Your task to perform on an android device: open app "Adobe Express: Graphic Design" (install if not already installed) Image 0: 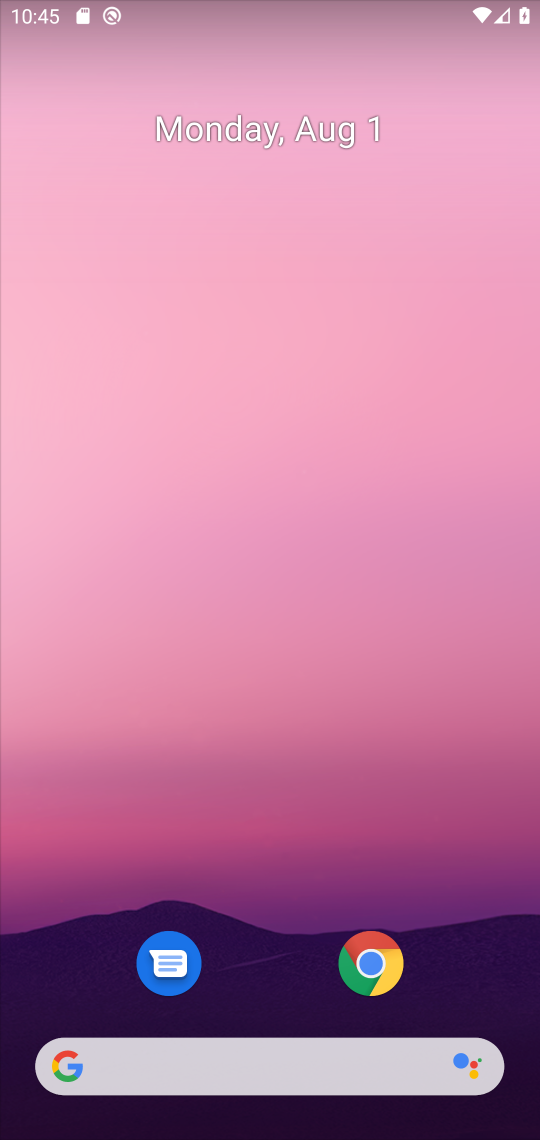
Step 0: drag from (251, 973) to (203, 0)
Your task to perform on an android device: open app "Adobe Express: Graphic Design" (install if not already installed) Image 1: 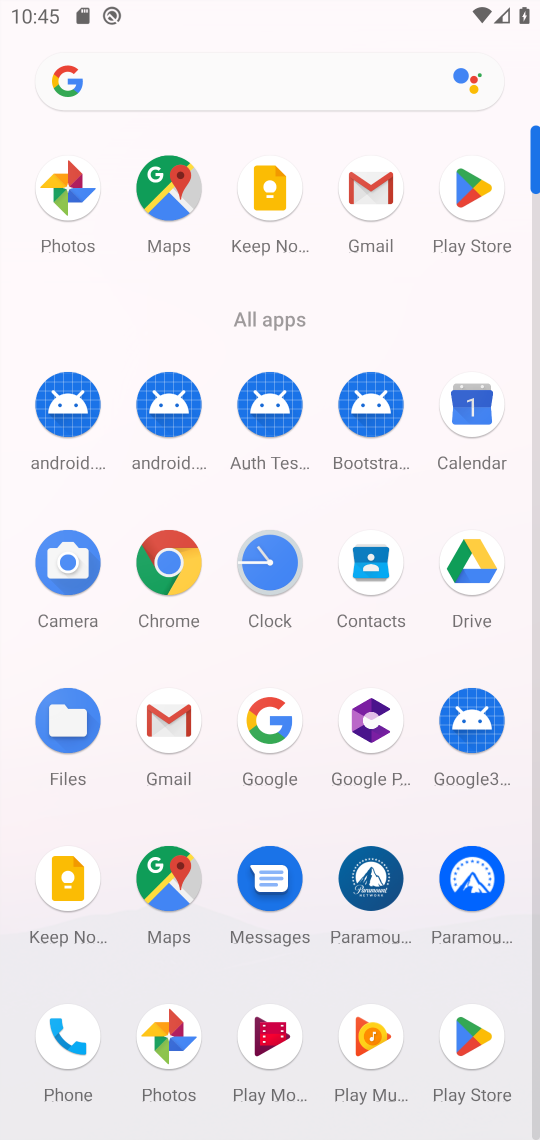
Step 1: click (488, 205)
Your task to perform on an android device: open app "Adobe Express: Graphic Design" (install if not already installed) Image 2: 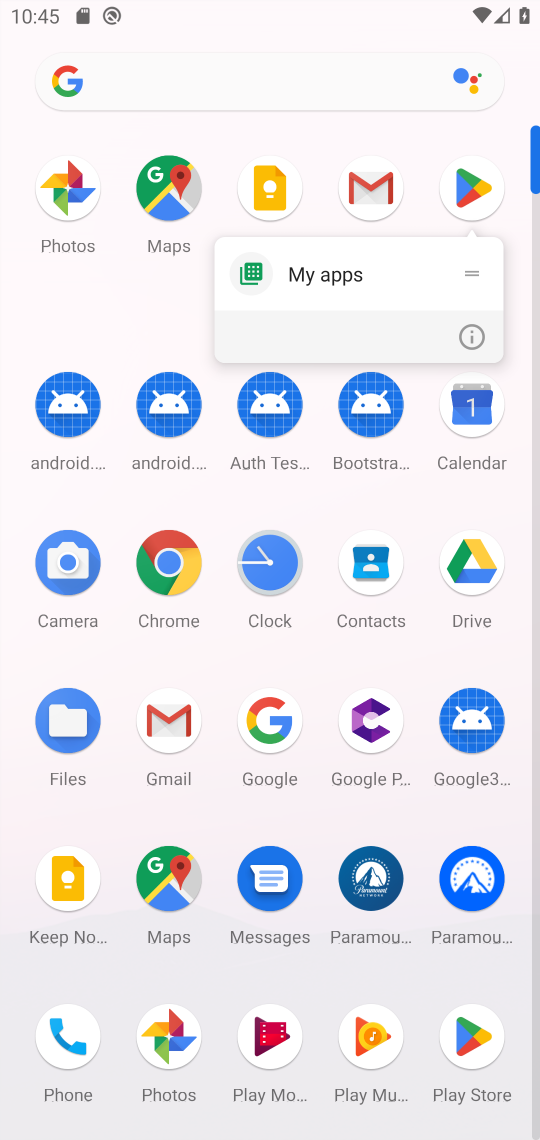
Step 2: click (465, 180)
Your task to perform on an android device: open app "Adobe Express: Graphic Design" (install if not already installed) Image 3: 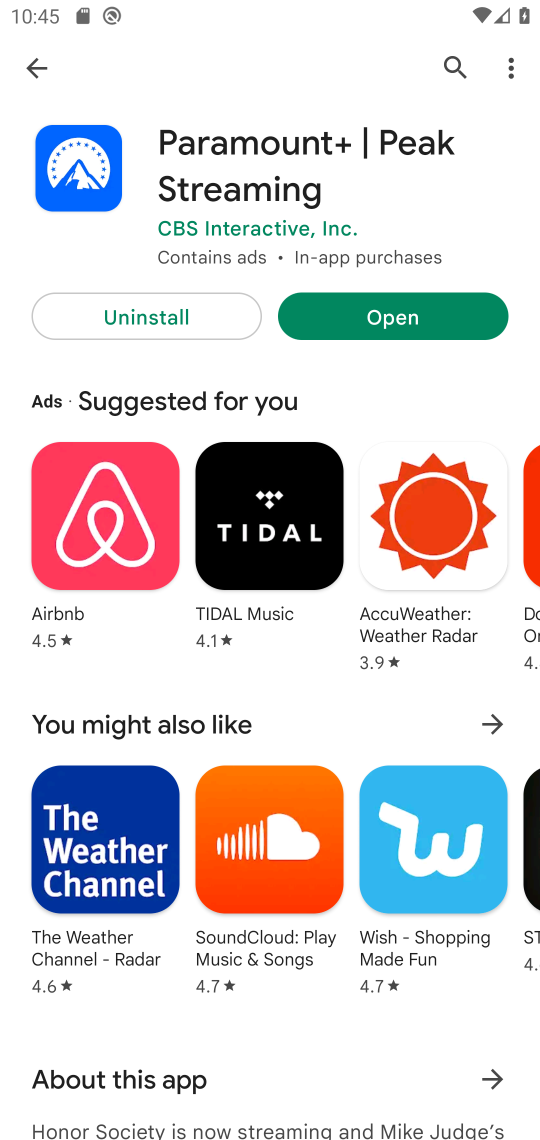
Step 3: click (39, 62)
Your task to perform on an android device: open app "Adobe Express: Graphic Design" (install if not already installed) Image 4: 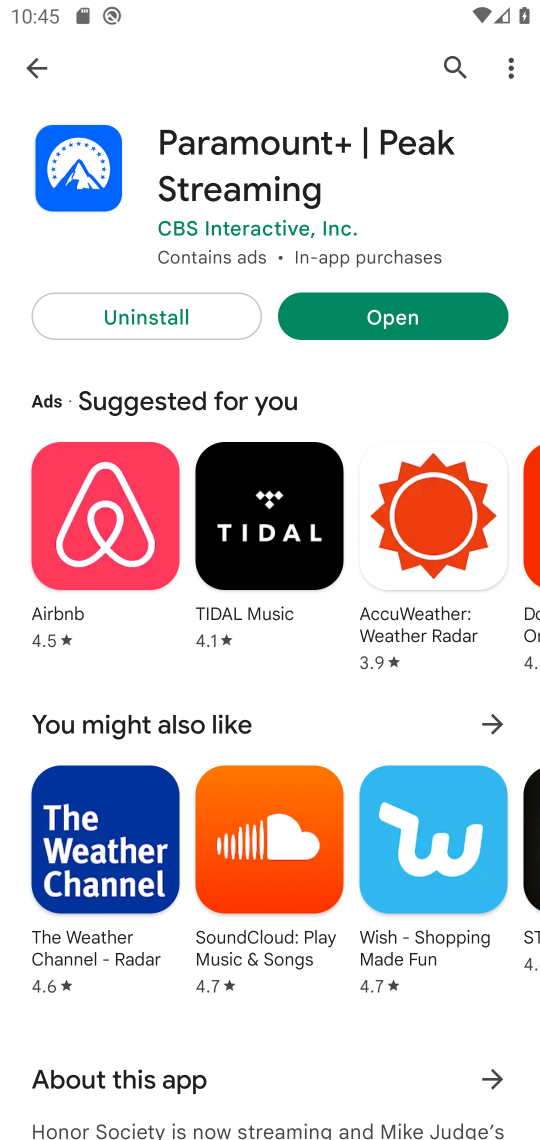
Step 4: click (34, 74)
Your task to perform on an android device: open app "Adobe Express: Graphic Design" (install if not already installed) Image 5: 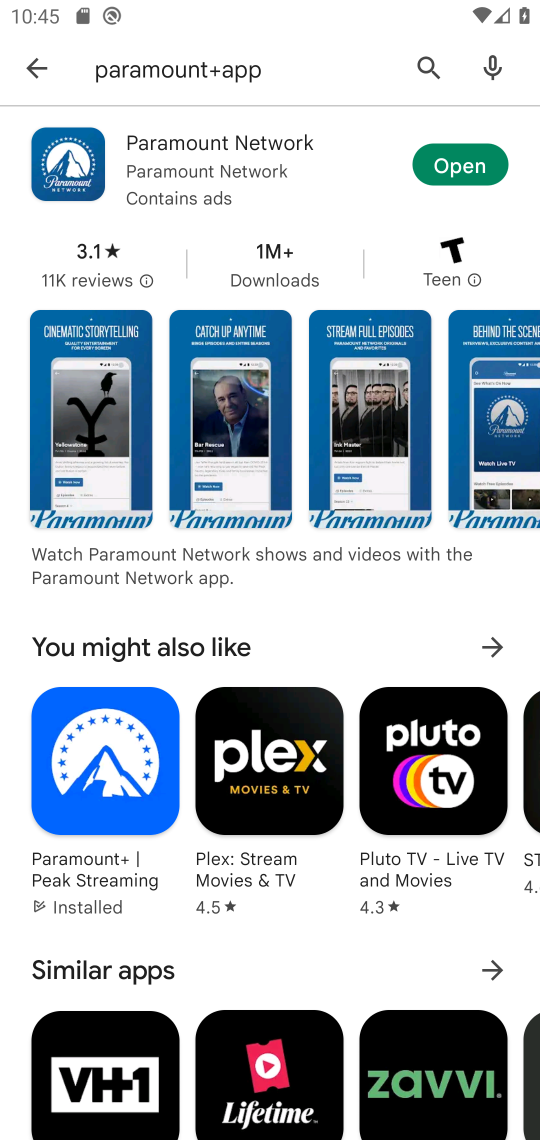
Step 5: click (248, 74)
Your task to perform on an android device: open app "Adobe Express: Graphic Design" (install if not already installed) Image 6: 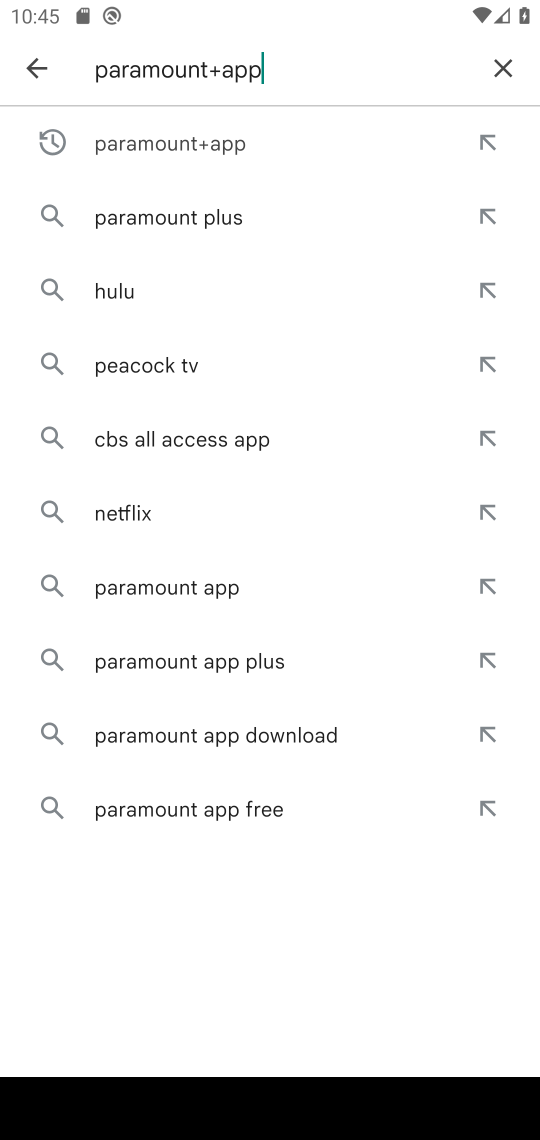
Step 6: click (491, 60)
Your task to perform on an android device: open app "Adobe Express: Graphic Design" (install if not already installed) Image 7: 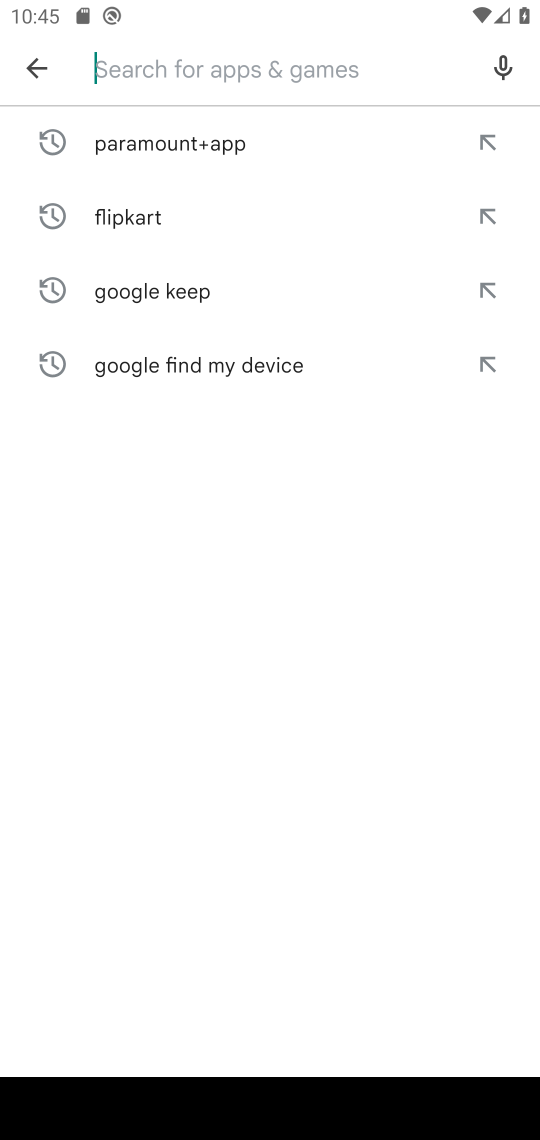
Step 7: type "Adobe Express"
Your task to perform on an android device: open app "Adobe Express: Graphic Design" (install if not already installed) Image 8: 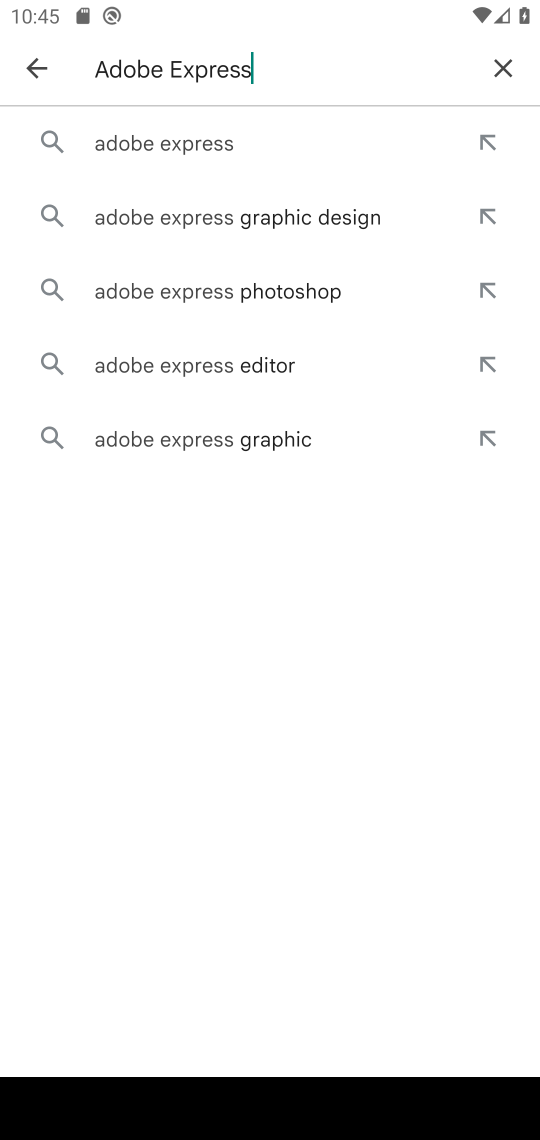
Step 8: click (242, 167)
Your task to perform on an android device: open app "Adobe Express: Graphic Design" (install if not already installed) Image 9: 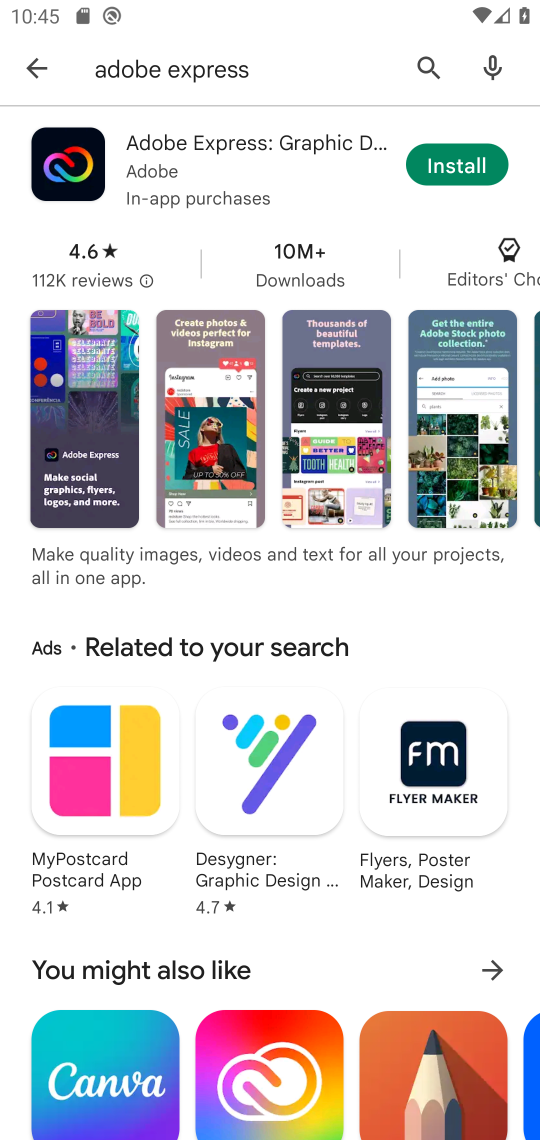
Step 9: click (444, 168)
Your task to perform on an android device: open app "Adobe Express: Graphic Design" (install if not already installed) Image 10: 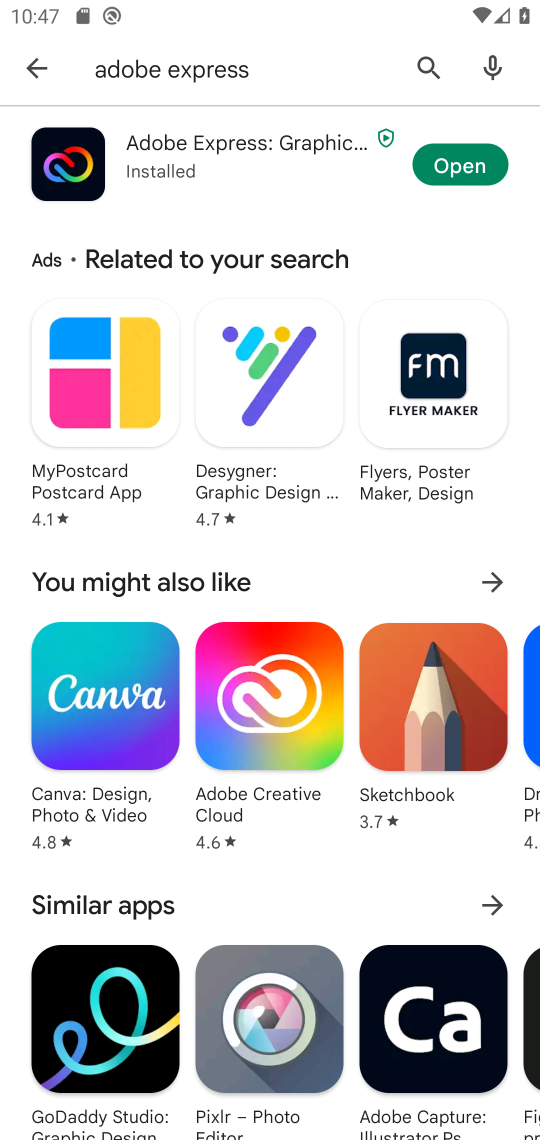
Step 10: click (477, 160)
Your task to perform on an android device: open app "Adobe Express: Graphic Design" (install if not already installed) Image 11: 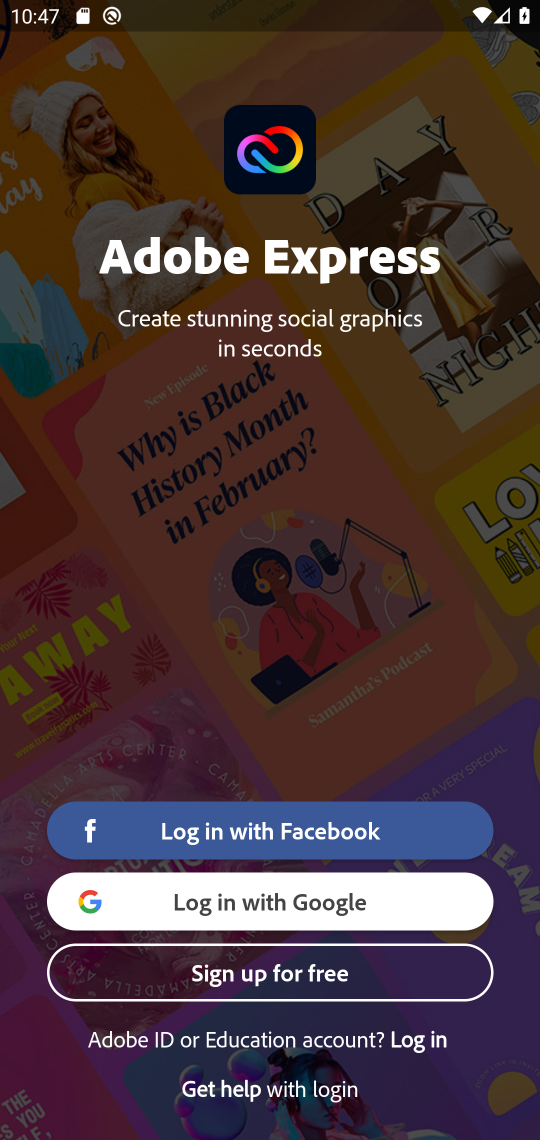
Step 11: click (353, 911)
Your task to perform on an android device: open app "Adobe Express: Graphic Design" (install if not already installed) Image 12: 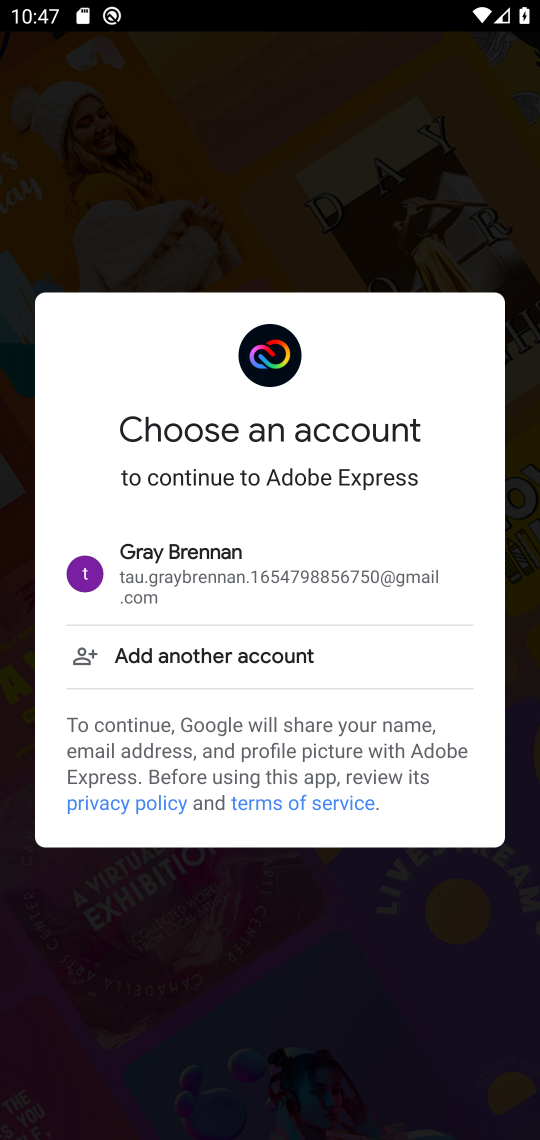
Step 12: click (235, 567)
Your task to perform on an android device: open app "Adobe Express: Graphic Design" (install if not already installed) Image 13: 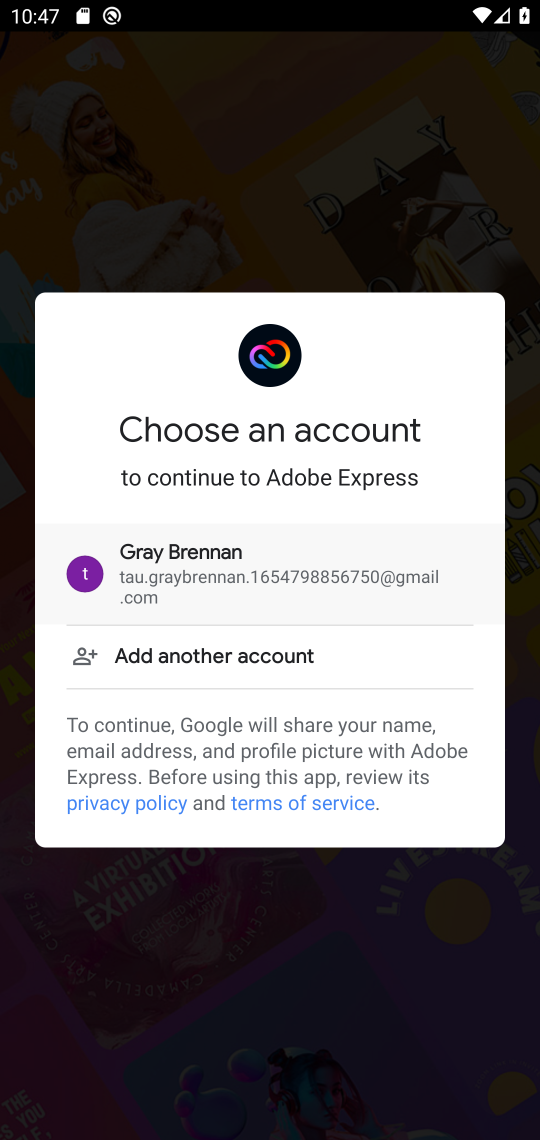
Step 13: click (245, 575)
Your task to perform on an android device: open app "Adobe Express: Graphic Design" (install if not already installed) Image 14: 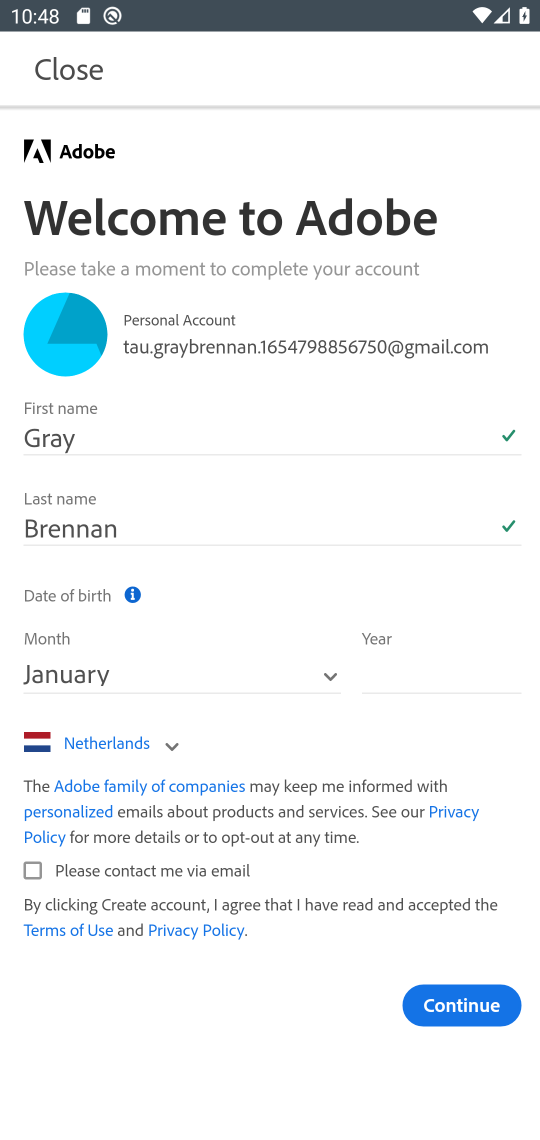
Step 14: click (329, 670)
Your task to perform on an android device: open app "Adobe Express: Graphic Design" (install if not already installed) Image 15: 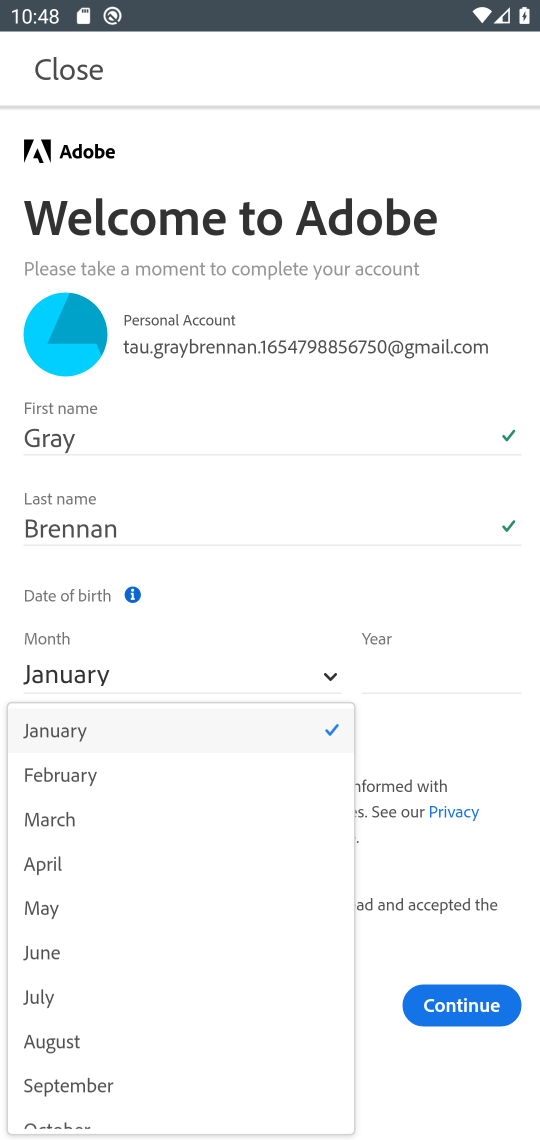
Step 15: click (96, 776)
Your task to perform on an android device: open app "Adobe Express: Graphic Design" (install if not already installed) Image 16: 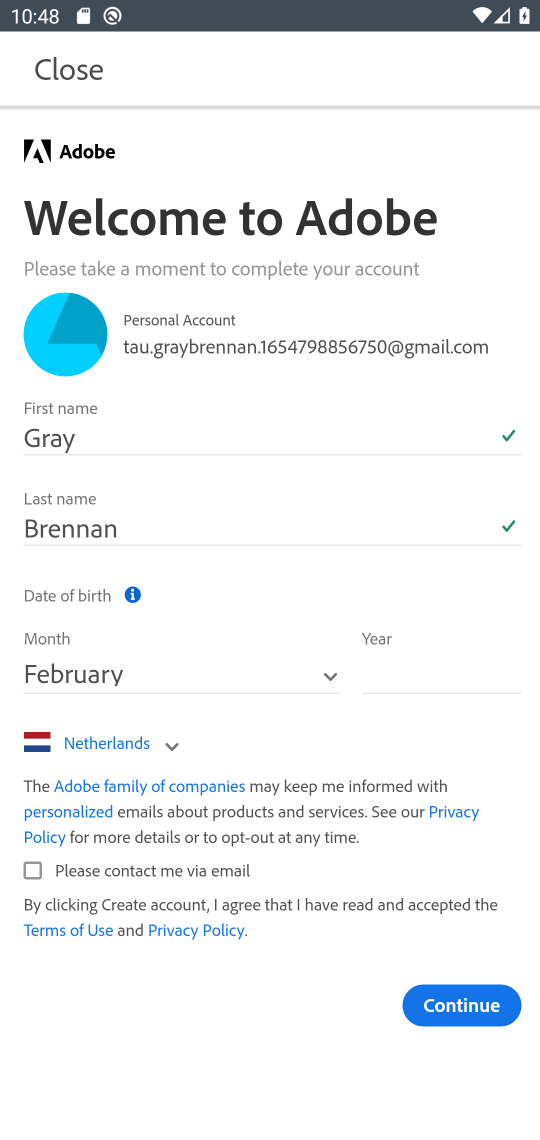
Step 16: click (414, 673)
Your task to perform on an android device: open app "Adobe Express: Graphic Design" (install if not already installed) Image 17: 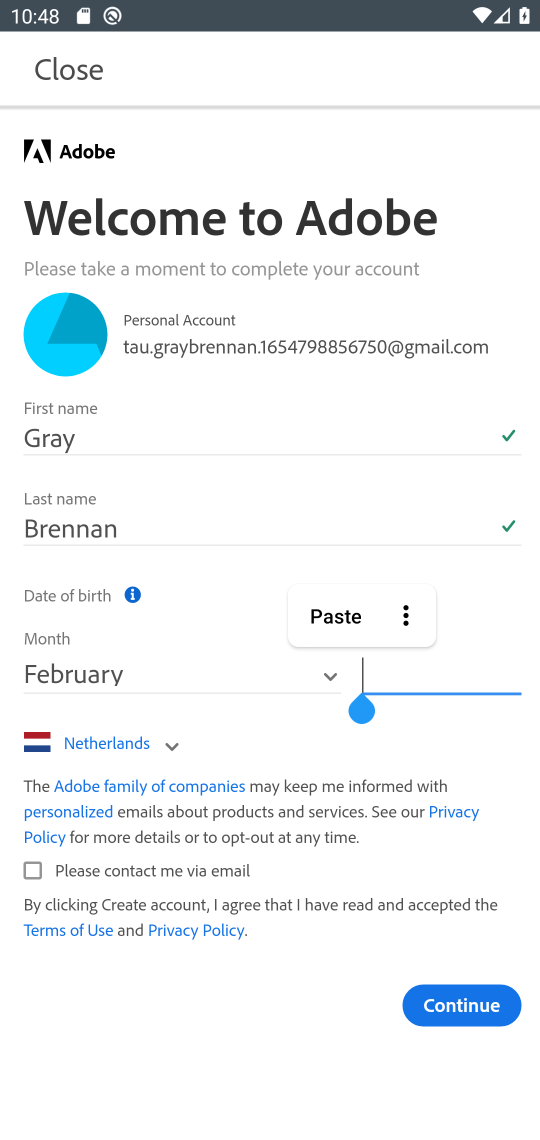
Step 17: type "1995"
Your task to perform on an android device: open app "Adobe Express: Graphic Design" (install if not already installed) Image 18: 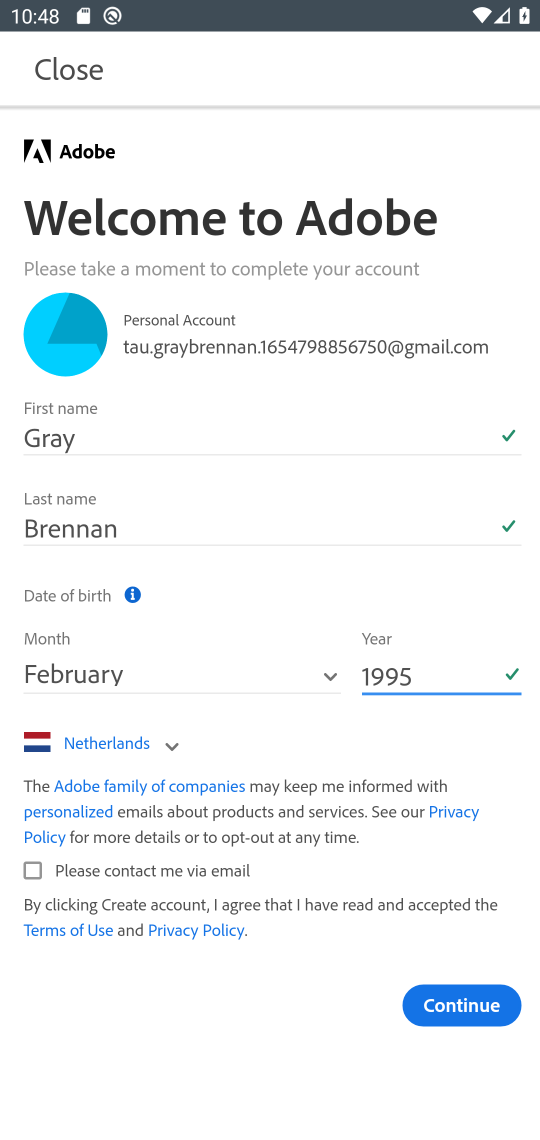
Step 18: click (26, 863)
Your task to perform on an android device: open app "Adobe Express: Graphic Design" (install if not already installed) Image 19: 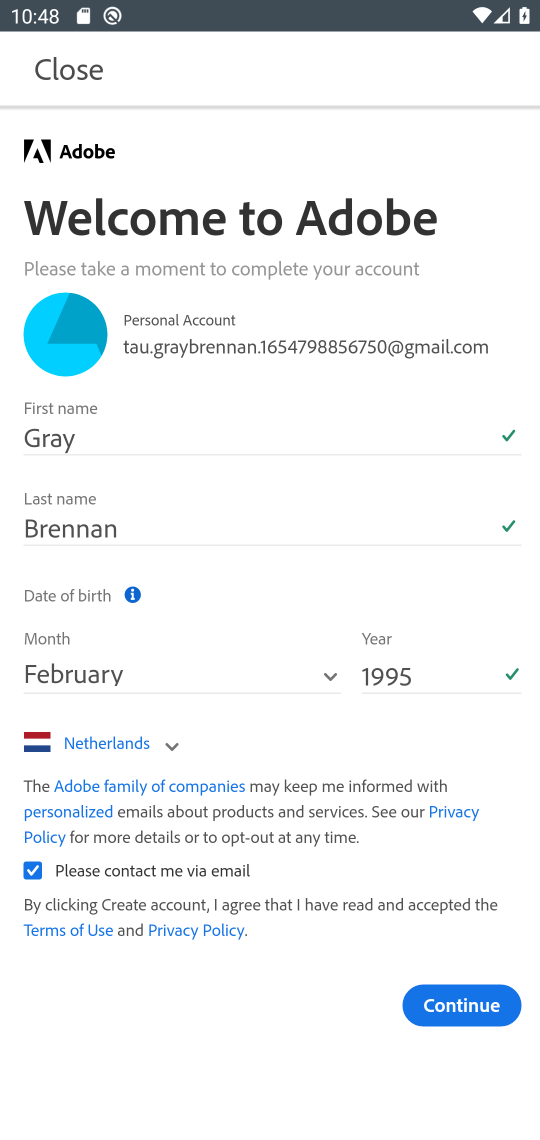
Step 19: click (465, 1017)
Your task to perform on an android device: open app "Adobe Express: Graphic Design" (install if not already installed) Image 20: 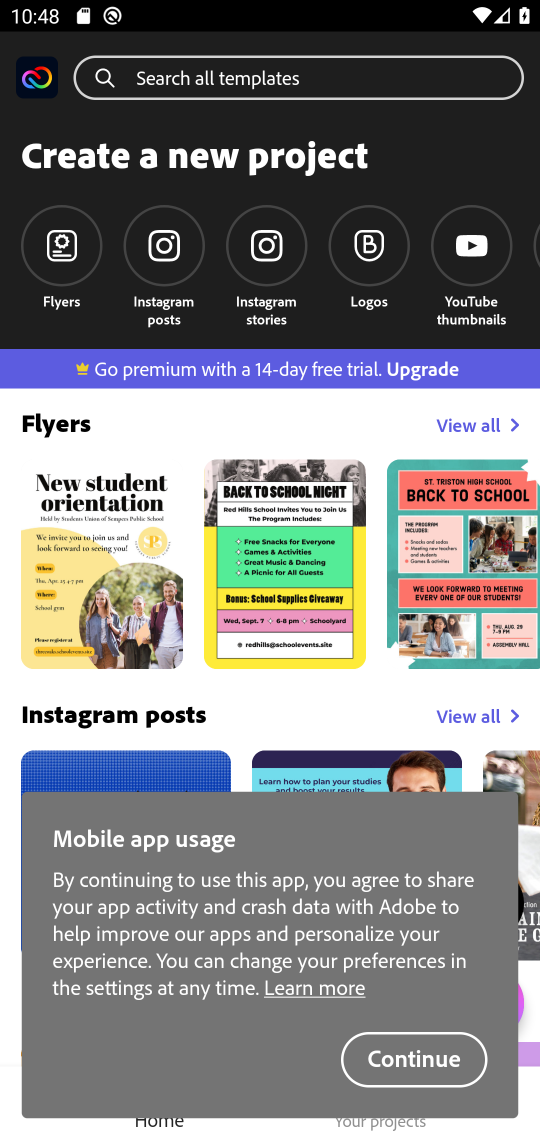
Step 20: click (427, 1071)
Your task to perform on an android device: open app "Adobe Express: Graphic Design" (install if not already installed) Image 21: 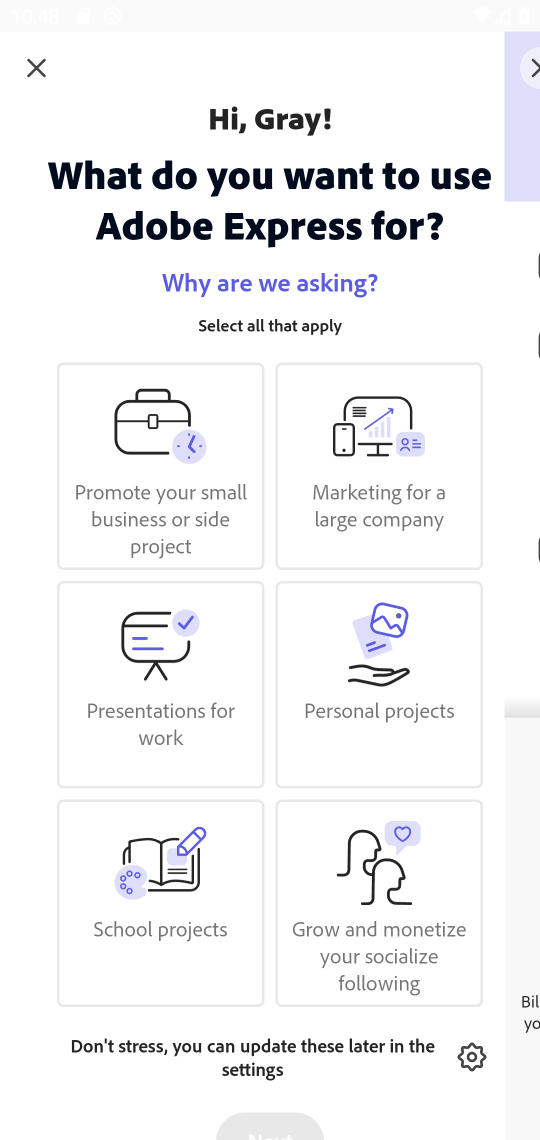
Step 21: task complete